Your task to perform on an android device: empty trash in the gmail app Image 0: 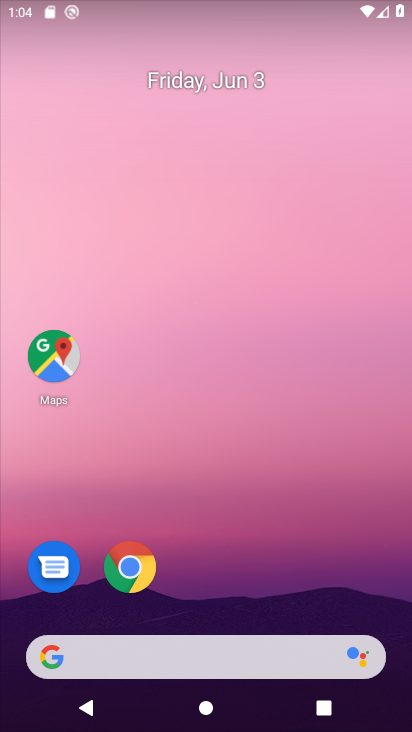
Step 0: drag from (222, 571) to (173, 257)
Your task to perform on an android device: empty trash in the gmail app Image 1: 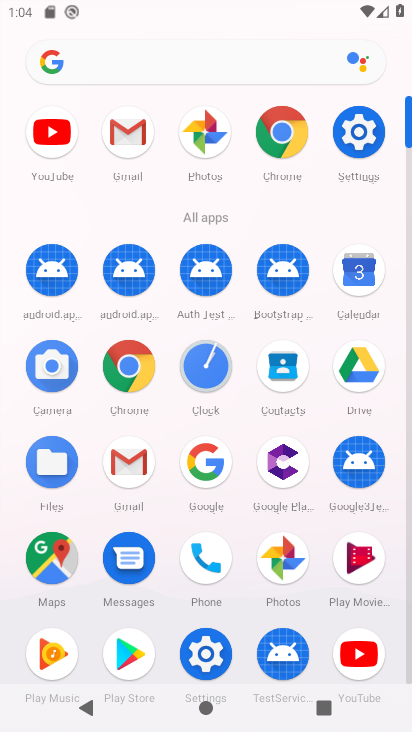
Step 1: click (131, 462)
Your task to perform on an android device: empty trash in the gmail app Image 2: 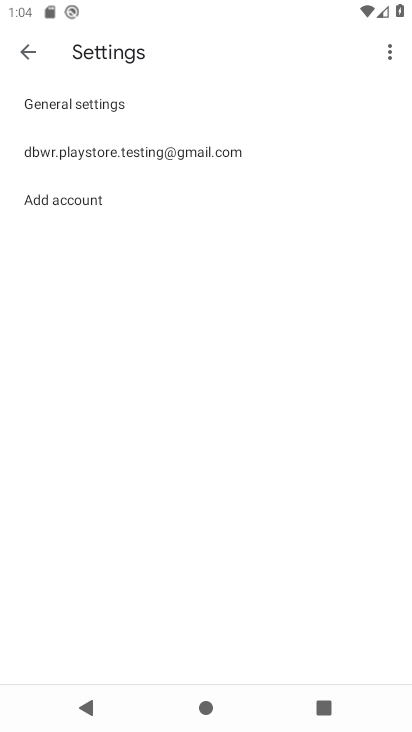
Step 2: click (120, 138)
Your task to perform on an android device: empty trash in the gmail app Image 3: 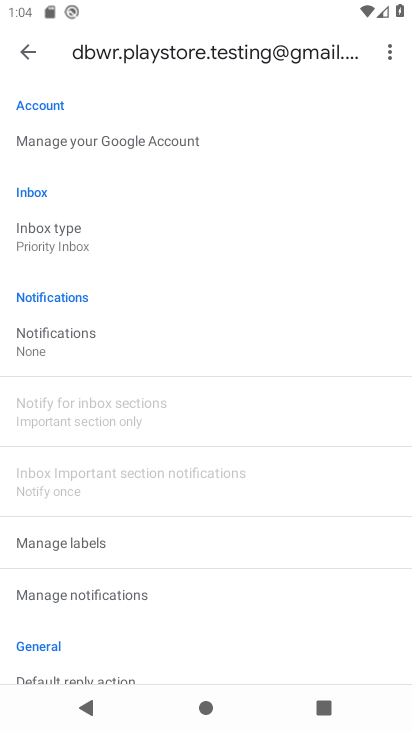
Step 3: click (29, 50)
Your task to perform on an android device: empty trash in the gmail app Image 4: 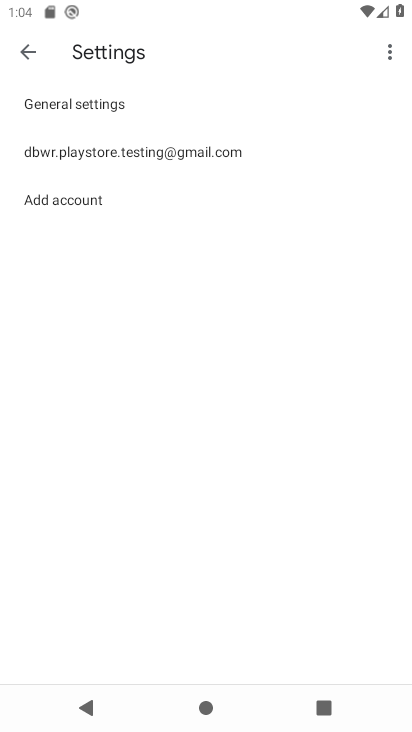
Step 4: click (29, 50)
Your task to perform on an android device: empty trash in the gmail app Image 5: 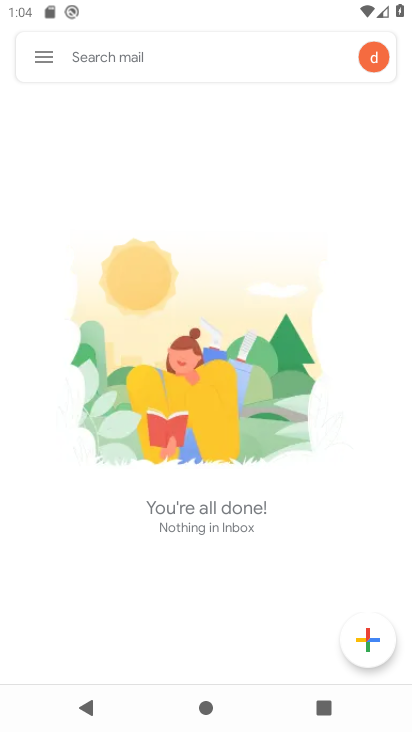
Step 5: click (37, 52)
Your task to perform on an android device: empty trash in the gmail app Image 6: 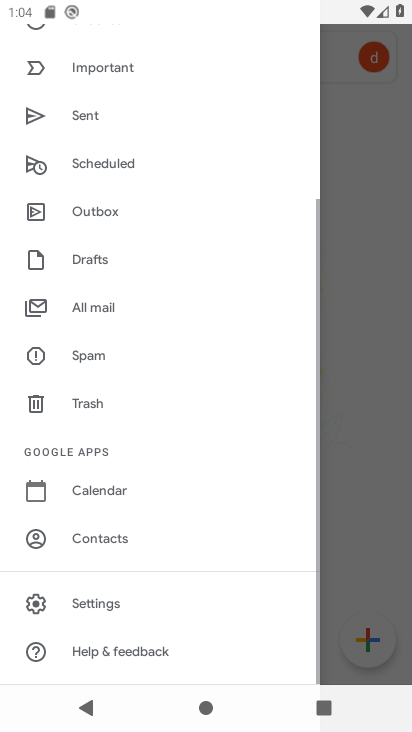
Step 6: click (73, 411)
Your task to perform on an android device: empty trash in the gmail app Image 7: 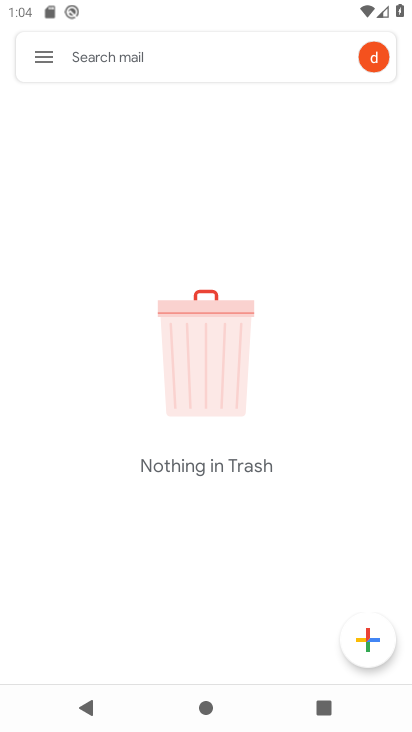
Step 7: task complete